Your task to perform on an android device: Open the calendar and show me this week's events Image 0: 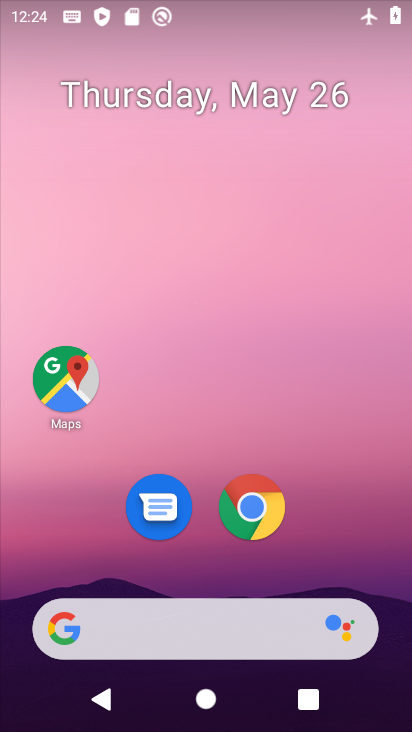
Step 0: drag from (194, 557) to (246, 221)
Your task to perform on an android device: Open the calendar and show me this week's events Image 1: 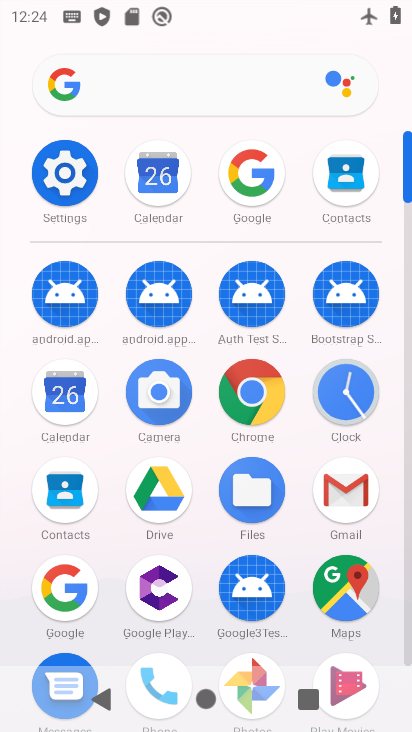
Step 1: click (160, 194)
Your task to perform on an android device: Open the calendar and show me this week's events Image 2: 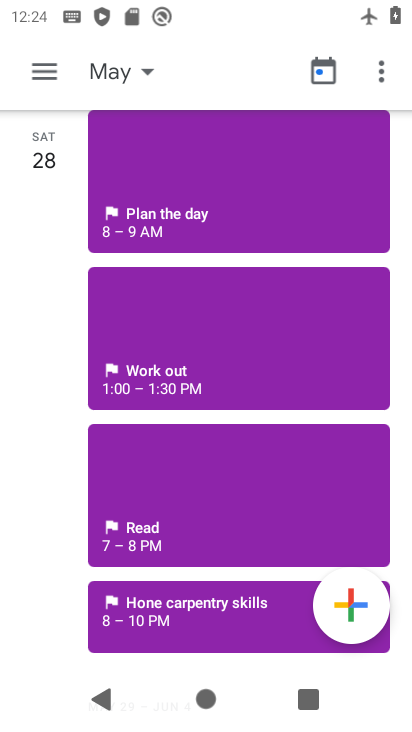
Step 2: click (148, 74)
Your task to perform on an android device: Open the calendar and show me this week's events Image 3: 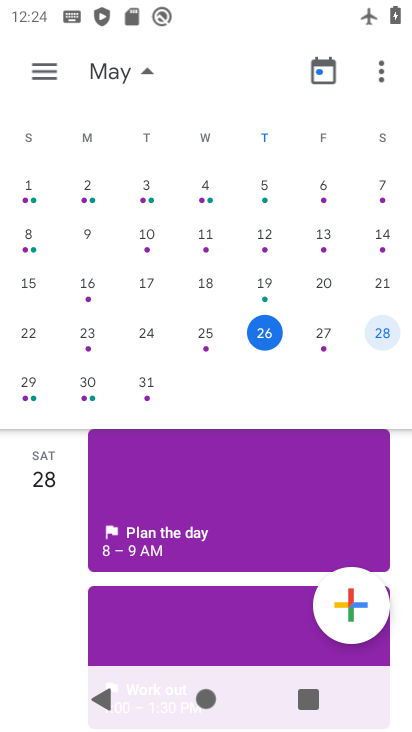
Step 3: click (148, 74)
Your task to perform on an android device: Open the calendar and show me this week's events Image 4: 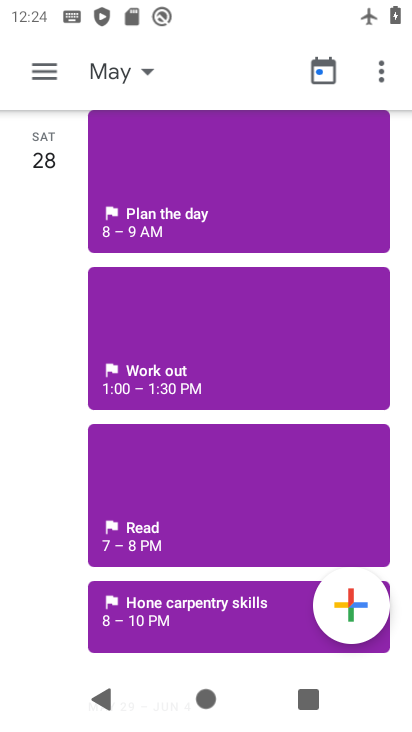
Step 4: task complete